Your task to perform on an android device: delete browsing data in the chrome app Image 0: 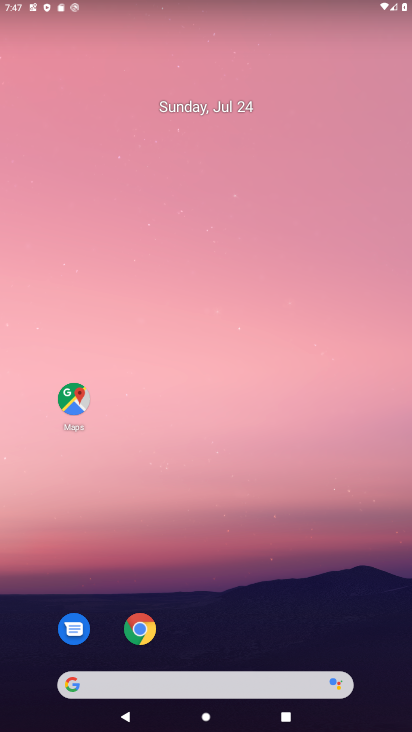
Step 0: drag from (183, 672) to (185, 180)
Your task to perform on an android device: delete browsing data in the chrome app Image 1: 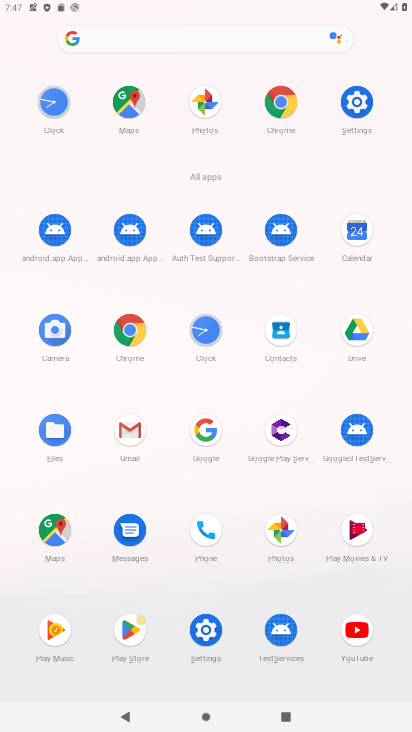
Step 1: click (122, 347)
Your task to perform on an android device: delete browsing data in the chrome app Image 2: 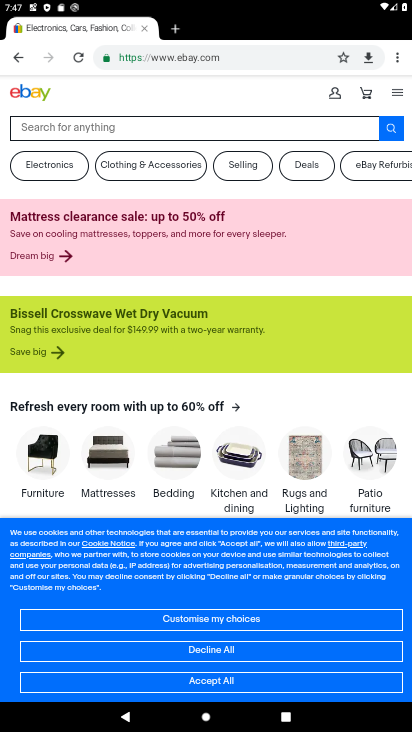
Step 2: click (402, 59)
Your task to perform on an android device: delete browsing data in the chrome app Image 3: 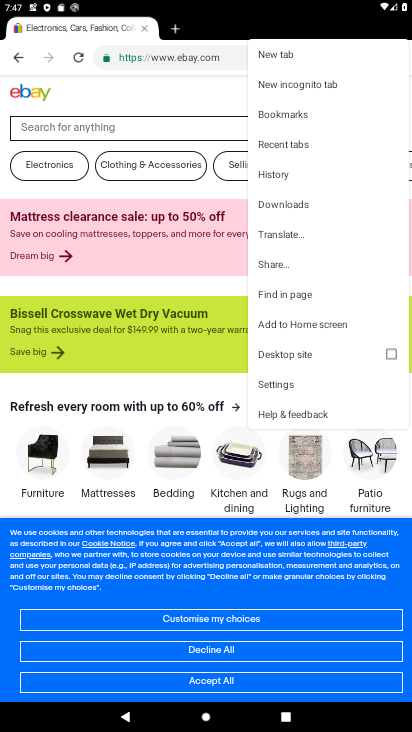
Step 3: click (281, 380)
Your task to perform on an android device: delete browsing data in the chrome app Image 4: 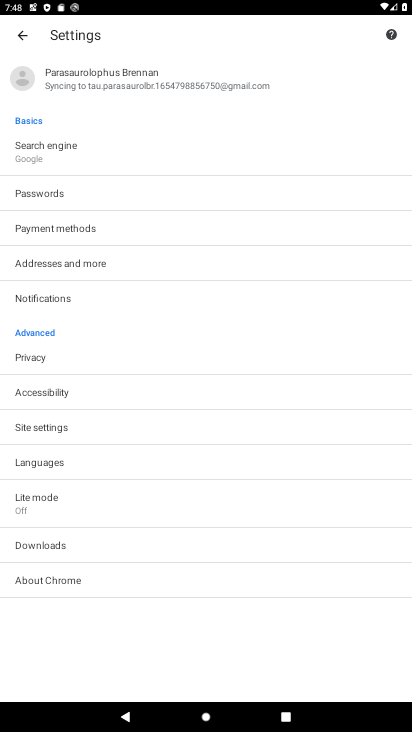
Step 4: click (20, 39)
Your task to perform on an android device: delete browsing data in the chrome app Image 5: 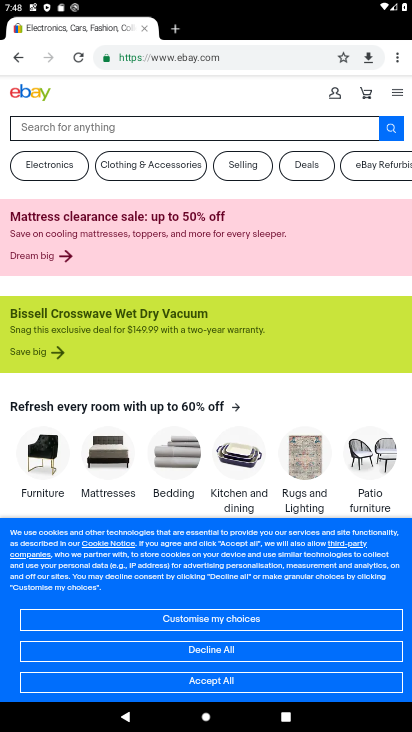
Step 5: click (398, 55)
Your task to perform on an android device: delete browsing data in the chrome app Image 6: 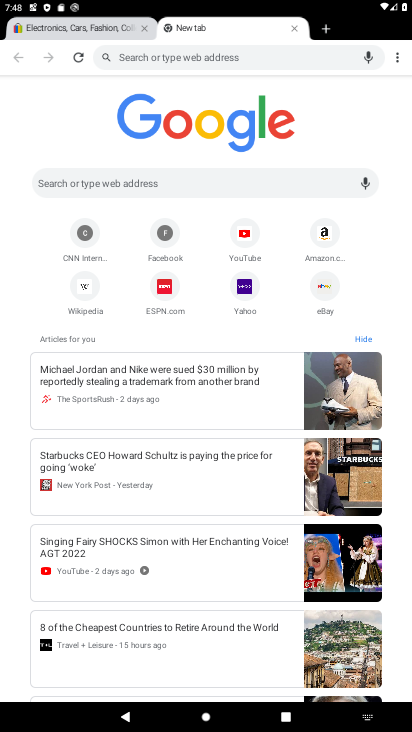
Step 6: click (398, 55)
Your task to perform on an android device: delete browsing data in the chrome app Image 7: 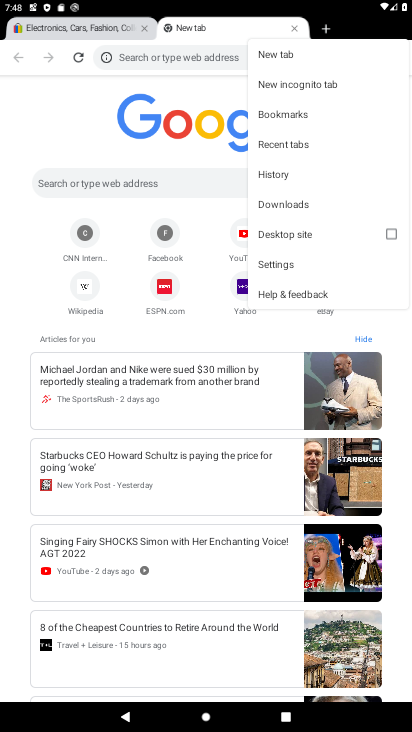
Step 7: click (287, 169)
Your task to perform on an android device: delete browsing data in the chrome app Image 8: 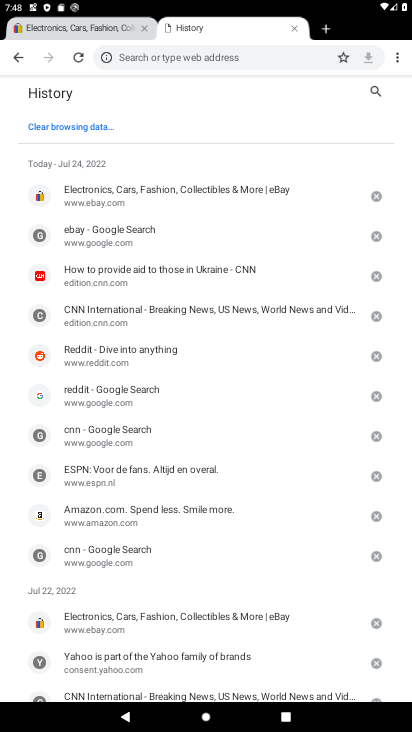
Step 8: click (62, 132)
Your task to perform on an android device: delete browsing data in the chrome app Image 9: 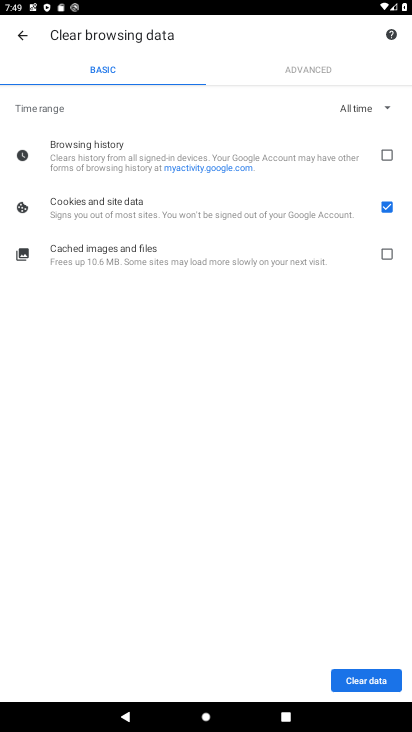
Step 9: click (382, 156)
Your task to perform on an android device: delete browsing data in the chrome app Image 10: 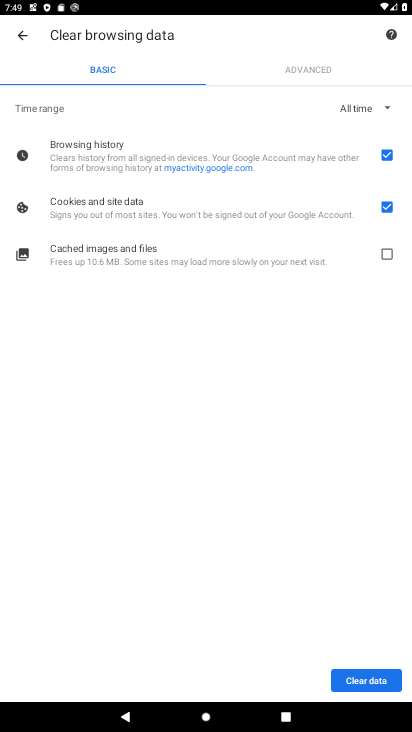
Step 10: click (394, 211)
Your task to perform on an android device: delete browsing data in the chrome app Image 11: 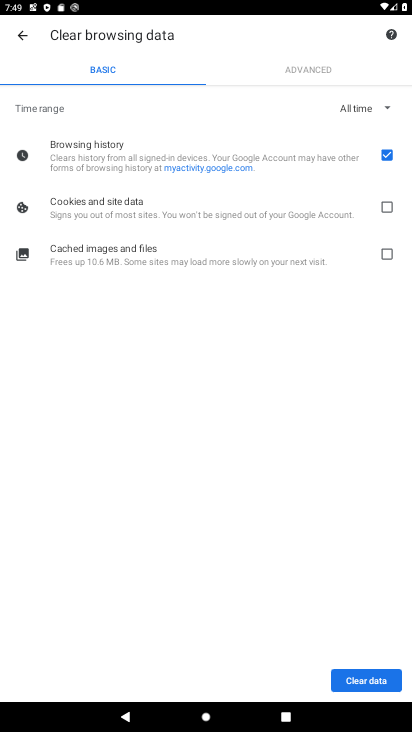
Step 11: click (359, 684)
Your task to perform on an android device: delete browsing data in the chrome app Image 12: 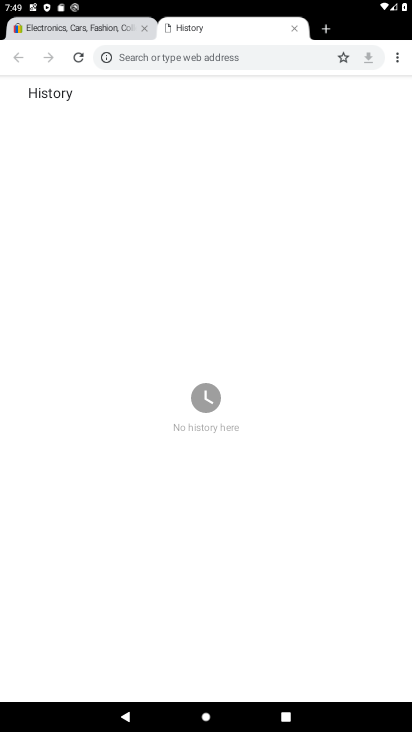
Step 12: task complete